Your task to perform on an android device: Go to sound settings Image 0: 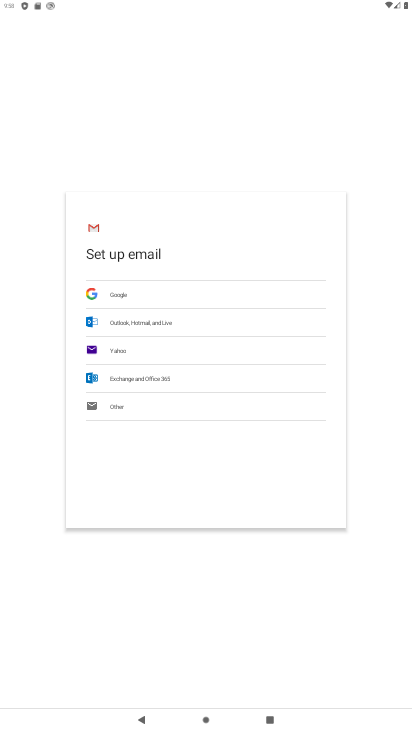
Step 0: press home button
Your task to perform on an android device: Go to sound settings Image 1: 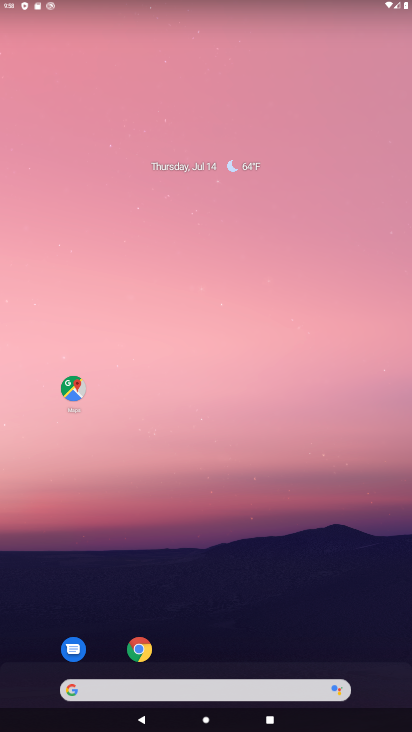
Step 1: drag from (273, 400) to (321, 22)
Your task to perform on an android device: Go to sound settings Image 2: 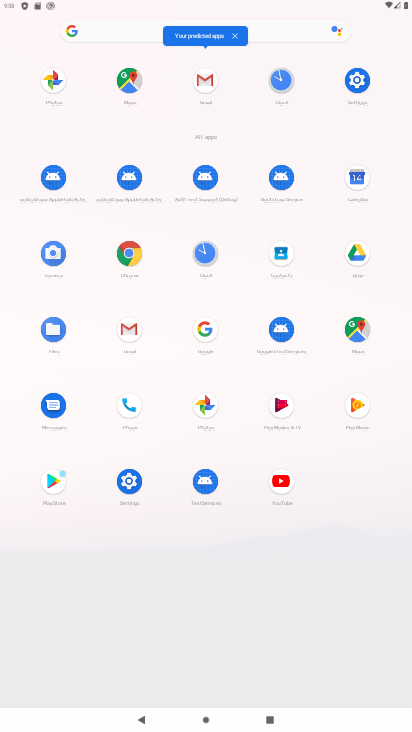
Step 2: click (120, 473)
Your task to perform on an android device: Go to sound settings Image 3: 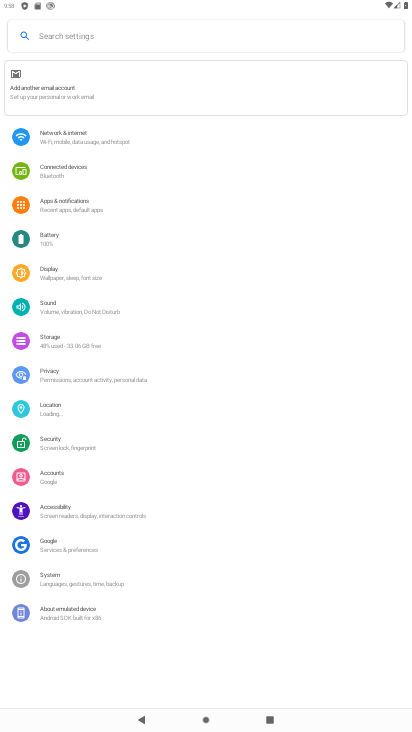
Step 3: click (48, 306)
Your task to perform on an android device: Go to sound settings Image 4: 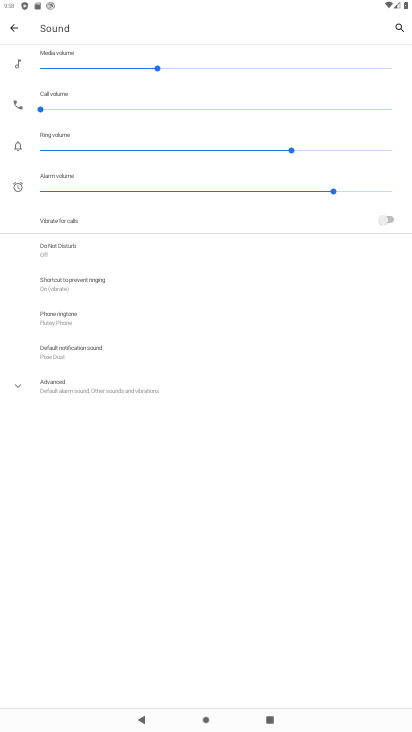
Step 4: task complete